Your task to perform on an android device: Play the last video I watched on Youtube Image 0: 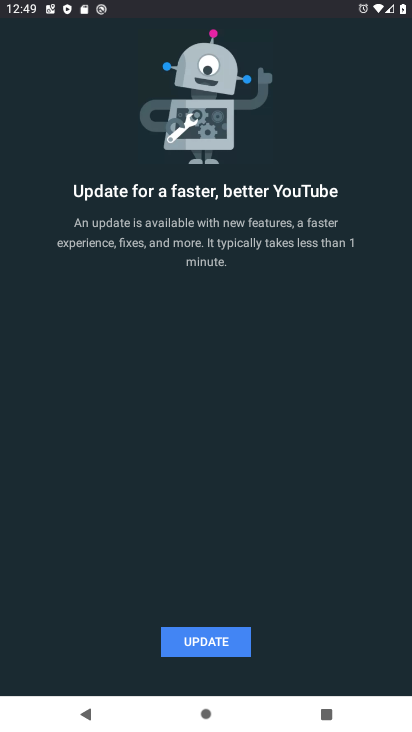
Step 0: press home button
Your task to perform on an android device: Play the last video I watched on Youtube Image 1: 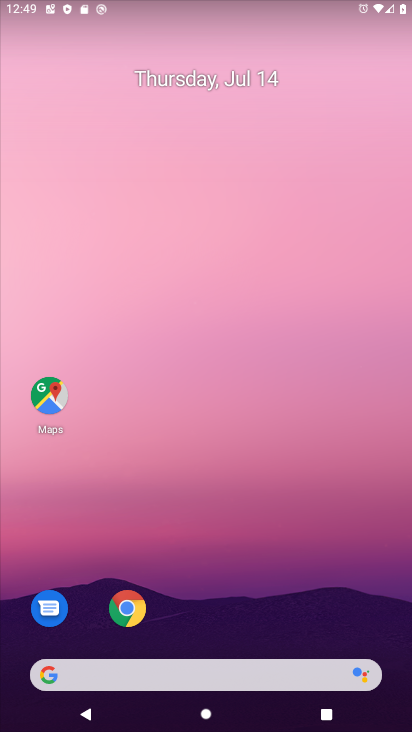
Step 1: drag from (257, 667) to (302, 174)
Your task to perform on an android device: Play the last video I watched on Youtube Image 2: 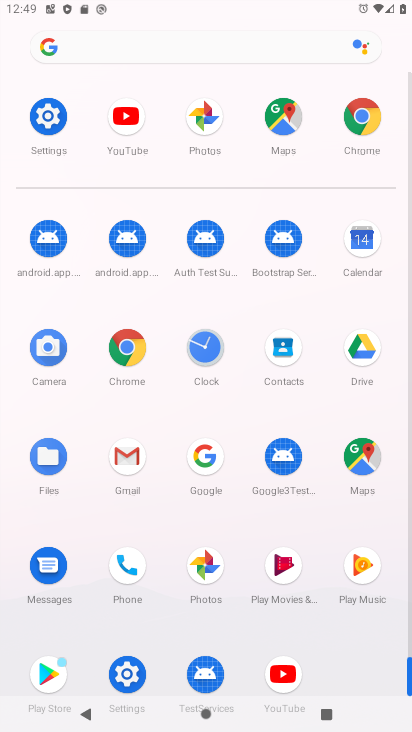
Step 2: click (285, 672)
Your task to perform on an android device: Play the last video I watched on Youtube Image 3: 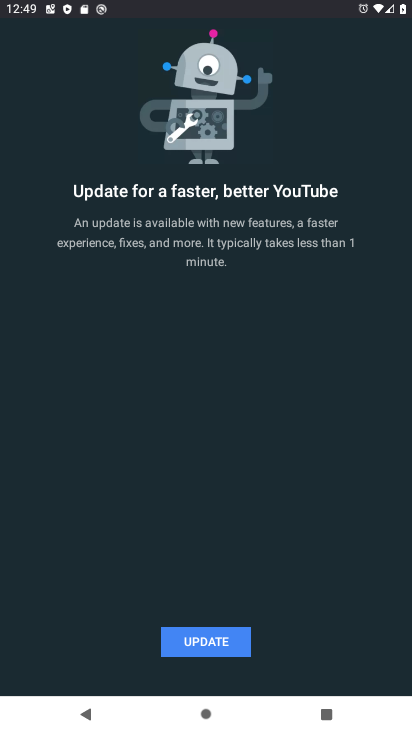
Step 3: click (226, 635)
Your task to perform on an android device: Play the last video I watched on Youtube Image 4: 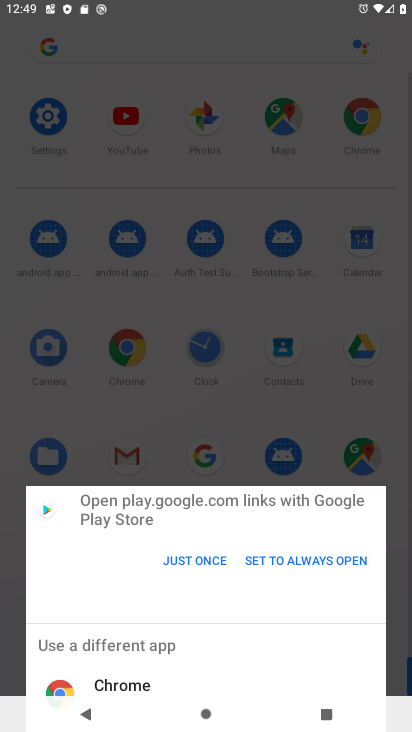
Step 4: click (204, 566)
Your task to perform on an android device: Play the last video I watched on Youtube Image 5: 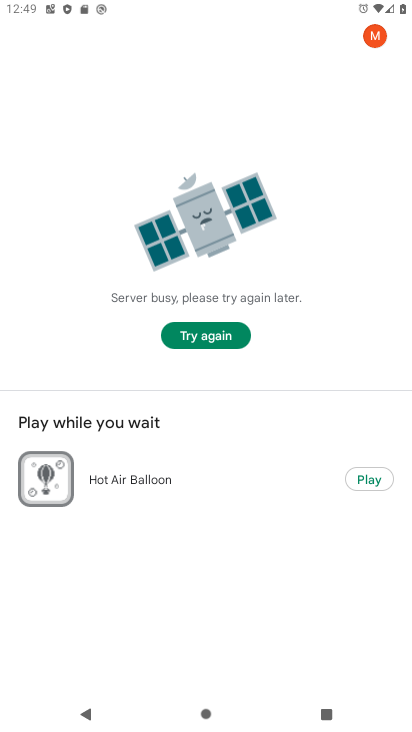
Step 5: click (217, 334)
Your task to perform on an android device: Play the last video I watched on Youtube Image 6: 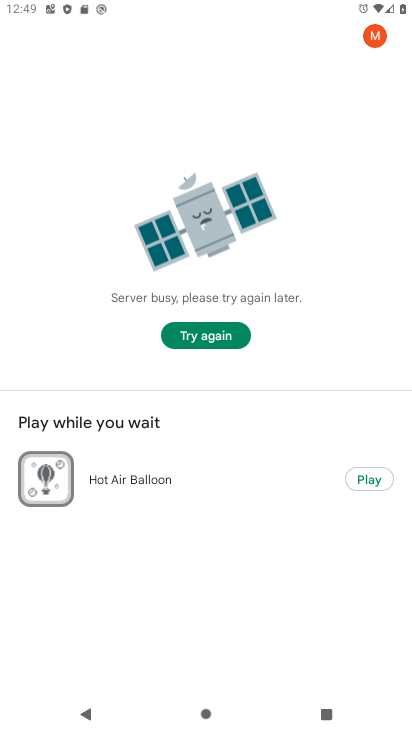
Step 6: click (217, 334)
Your task to perform on an android device: Play the last video I watched on Youtube Image 7: 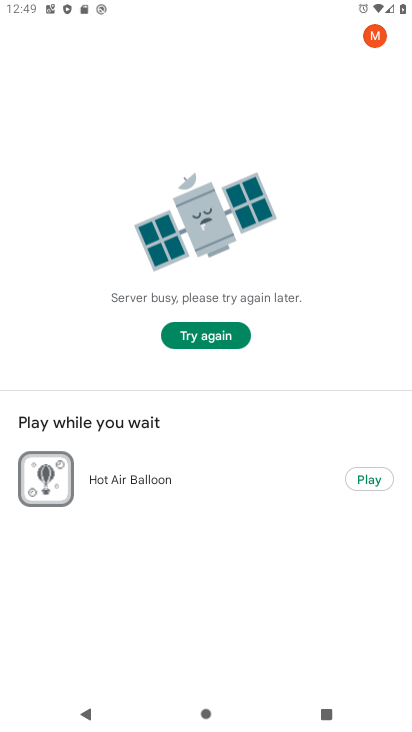
Step 7: click (217, 334)
Your task to perform on an android device: Play the last video I watched on Youtube Image 8: 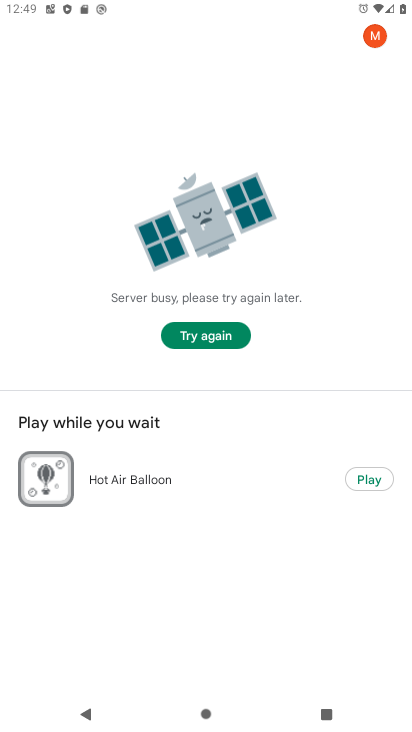
Step 8: task complete